Your task to perform on an android device: open the mobile data screen to see how much data has been used Image 0: 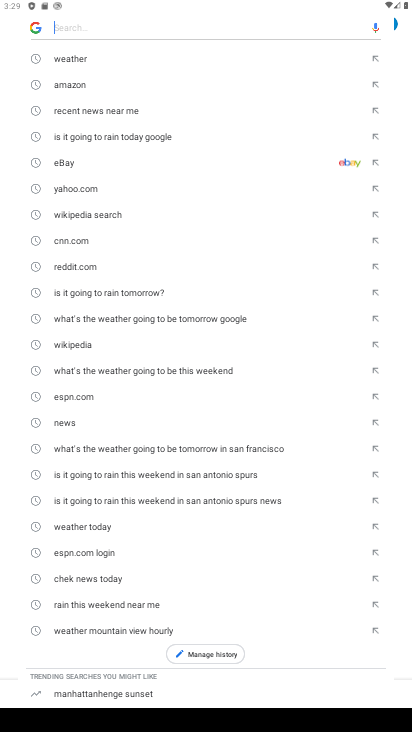
Step 0: press home button
Your task to perform on an android device: open the mobile data screen to see how much data has been used Image 1: 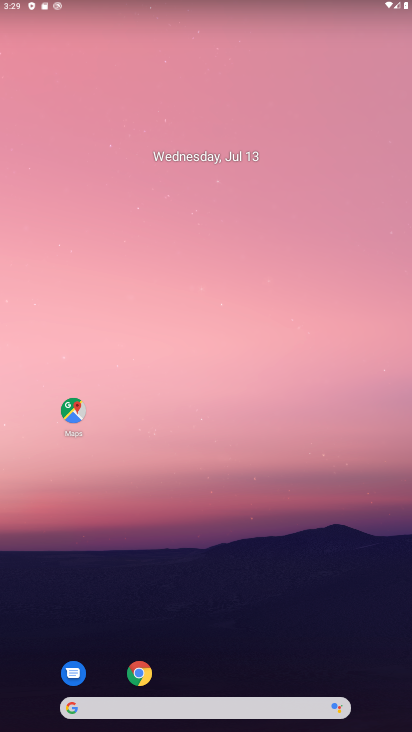
Step 1: drag from (205, 603) to (218, 183)
Your task to perform on an android device: open the mobile data screen to see how much data has been used Image 2: 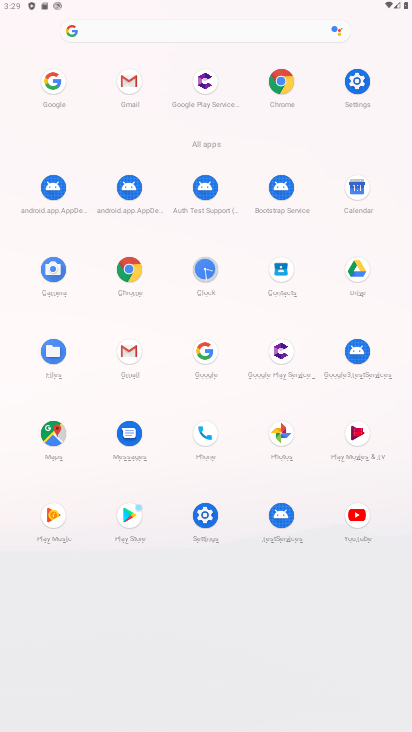
Step 2: click (358, 79)
Your task to perform on an android device: open the mobile data screen to see how much data has been used Image 3: 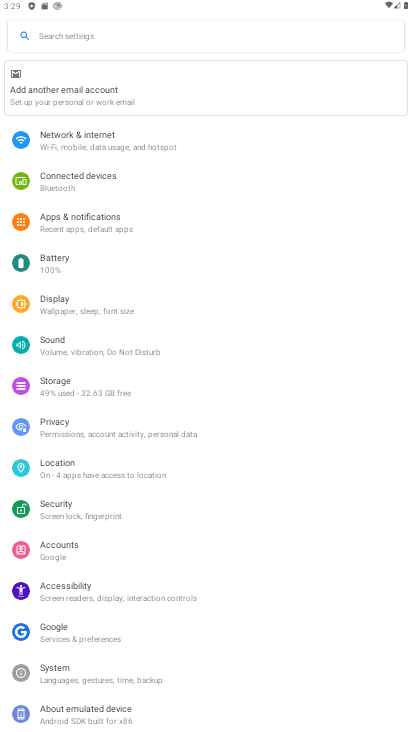
Step 3: click (95, 128)
Your task to perform on an android device: open the mobile data screen to see how much data has been used Image 4: 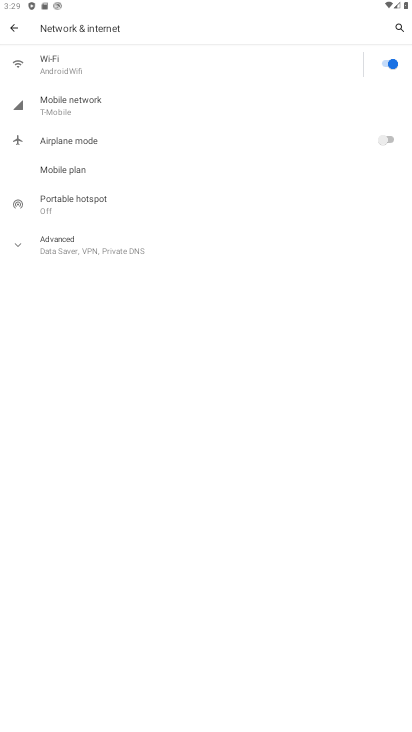
Step 4: click (83, 105)
Your task to perform on an android device: open the mobile data screen to see how much data has been used Image 5: 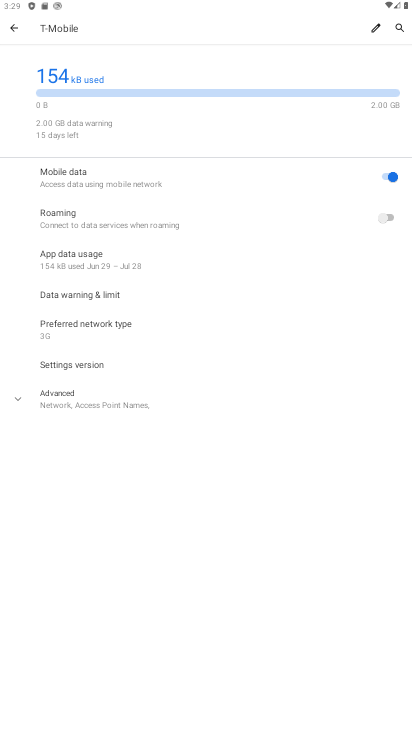
Step 5: task complete